Your task to perform on an android device: turn off translation in the chrome app Image 0: 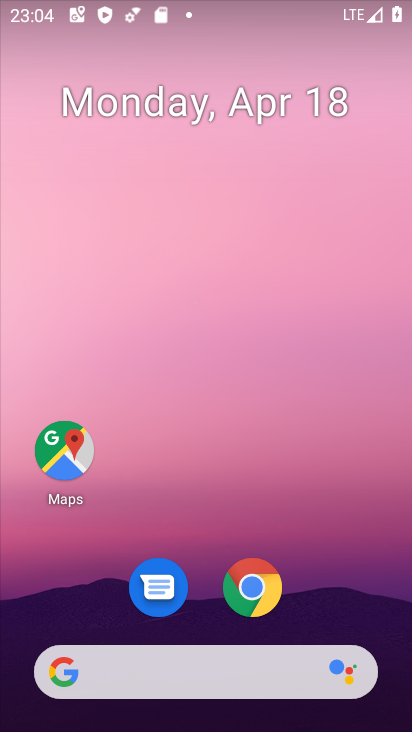
Step 0: drag from (379, 562) to (364, 112)
Your task to perform on an android device: turn off translation in the chrome app Image 1: 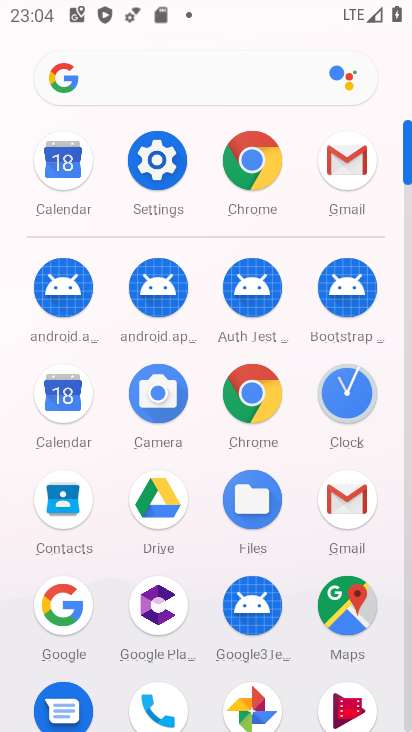
Step 1: click (249, 414)
Your task to perform on an android device: turn off translation in the chrome app Image 2: 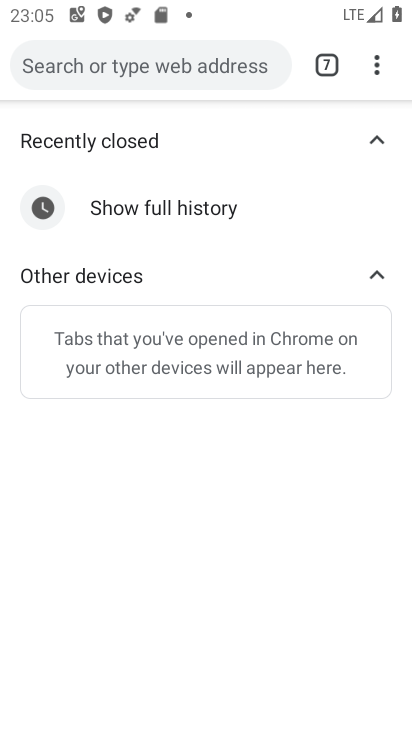
Step 2: click (328, 65)
Your task to perform on an android device: turn off translation in the chrome app Image 3: 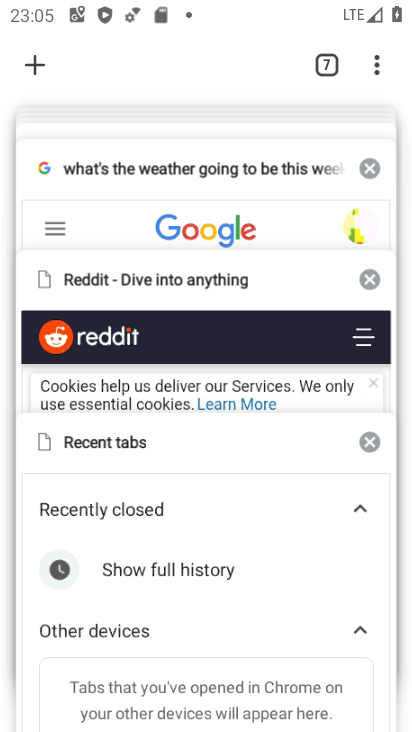
Step 3: click (32, 66)
Your task to perform on an android device: turn off translation in the chrome app Image 4: 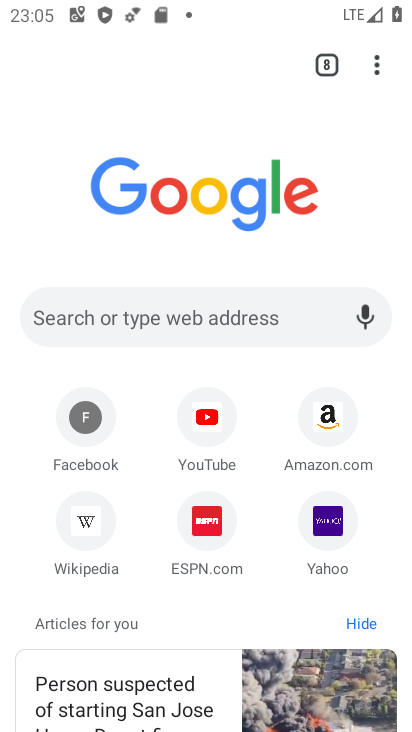
Step 4: click (378, 59)
Your task to perform on an android device: turn off translation in the chrome app Image 5: 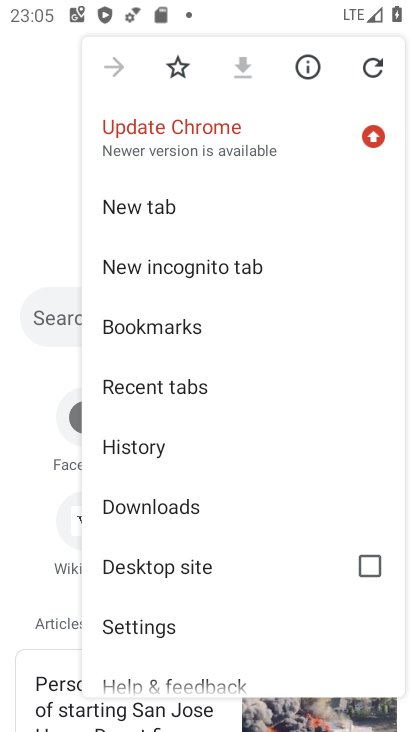
Step 5: click (152, 634)
Your task to perform on an android device: turn off translation in the chrome app Image 6: 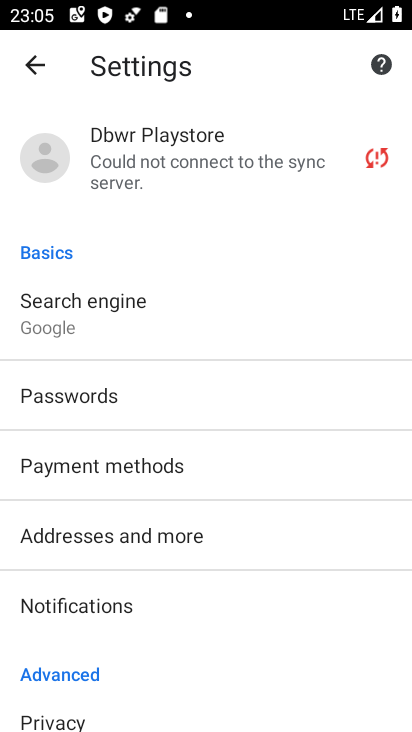
Step 6: drag from (283, 607) to (292, 278)
Your task to perform on an android device: turn off translation in the chrome app Image 7: 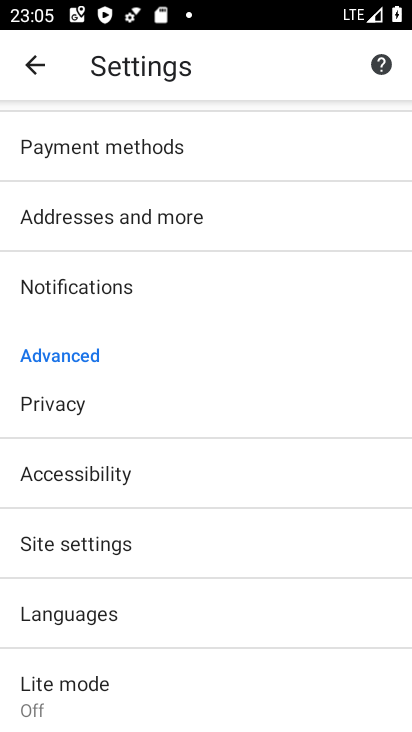
Step 7: click (191, 608)
Your task to perform on an android device: turn off translation in the chrome app Image 8: 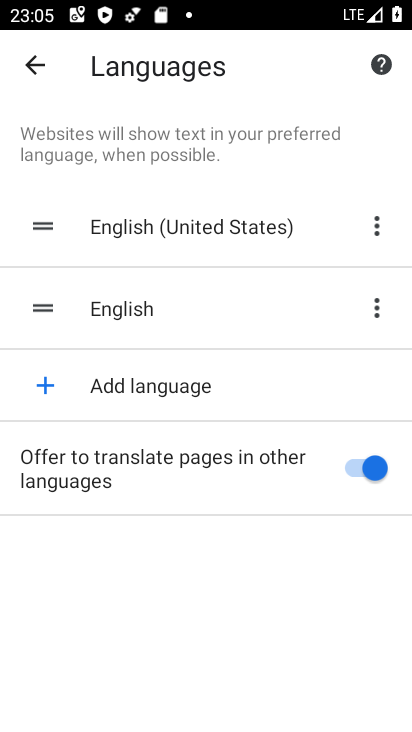
Step 8: click (364, 464)
Your task to perform on an android device: turn off translation in the chrome app Image 9: 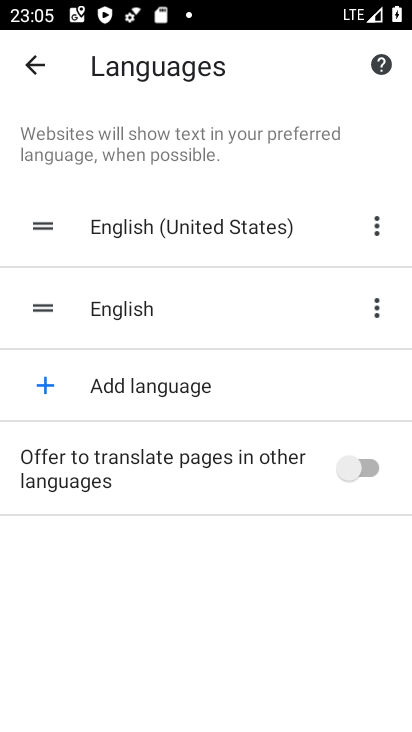
Step 9: task complete